Your task to perform on an android device: Open maps Image 0: 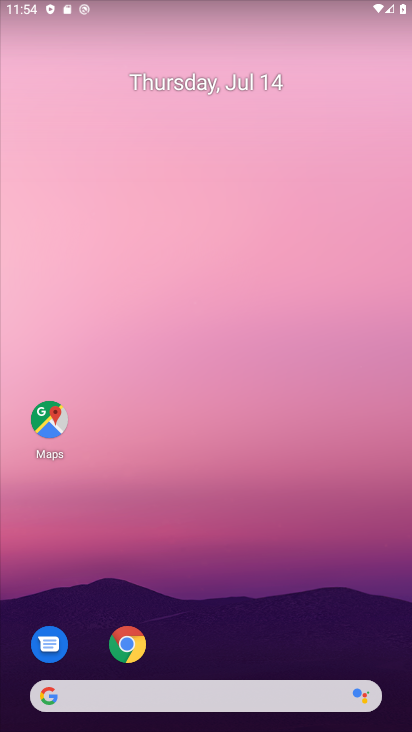
Step 0: drag from (195, 662) to (159, 127)
Your task to perform on an android device: Open maps Image 1: 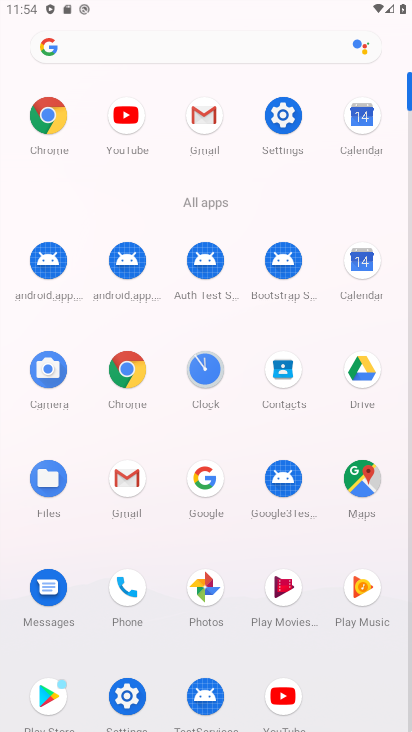
Step 1: click (359, 485)
Your task to perform on an android device: Open maps Image 2: 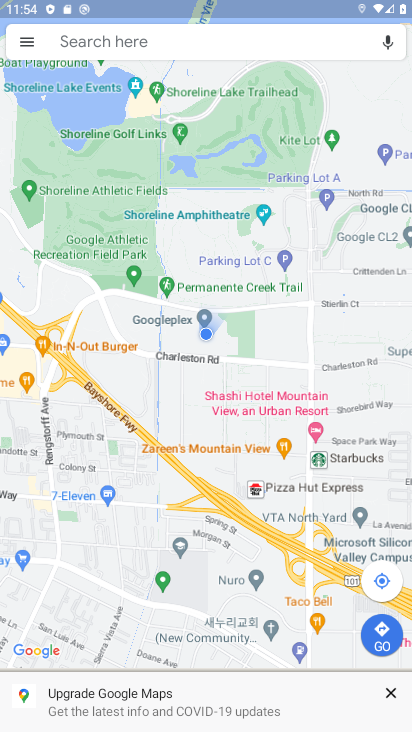
Step 2: task complete